Your task to perform on an android device: star an email in the gmail app Image 0: 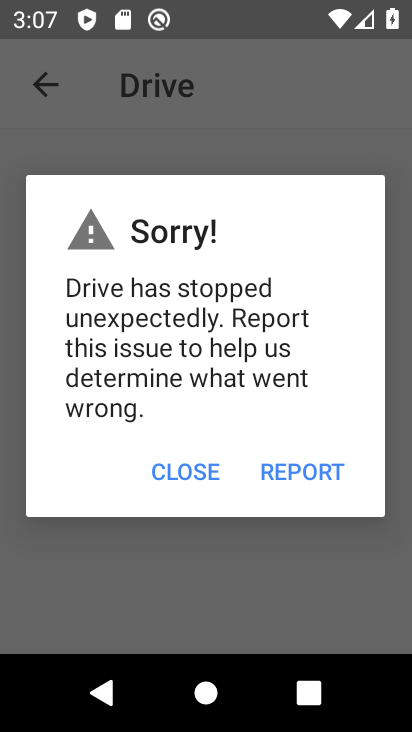
Step 0: drag from (150, 592) to (309, 137)
Your task to perform on an android device: star an email in the gmail app Image 1: 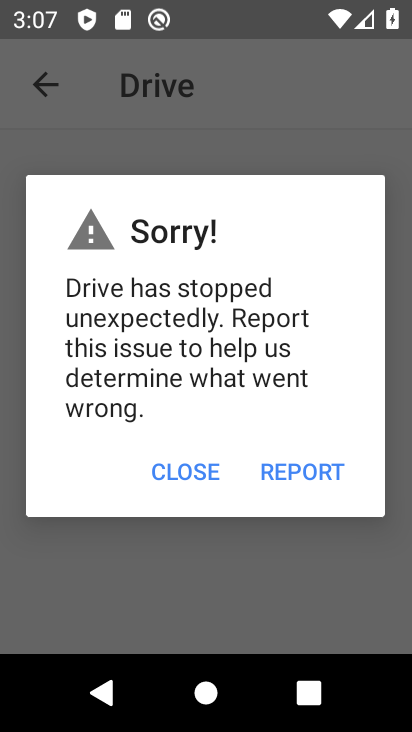
Step 1: press home button
Your task to perform on an android device: star an email in the gmail app Image 2: 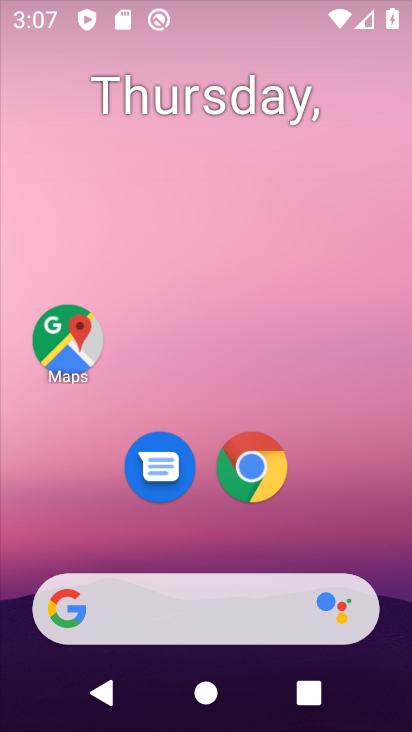
Step 2: drag from (163, 611) to (179, 61)
Your task to perform on an android device: star an email in the gmail app Image 3: 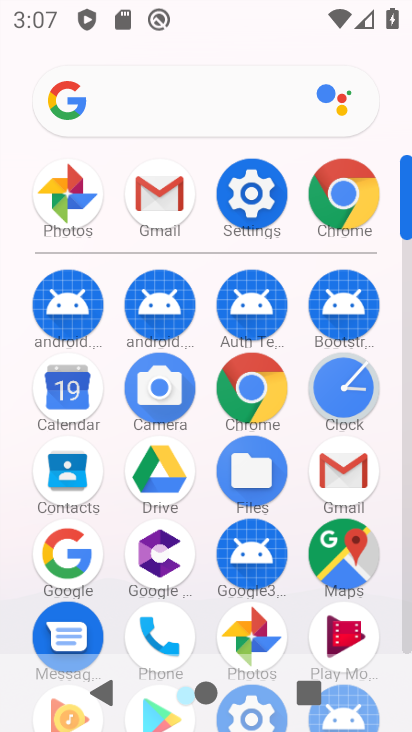
Step 3: click (146, 216)
Your task to perform on an android device: star an email in the gmail app Image 4: 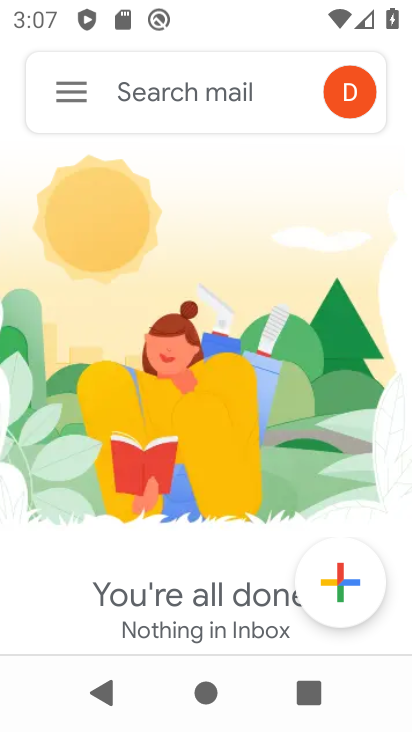
Step 4: click (69, 84)
Your task to perform on an android device: star an email in the gmail app Image 5: 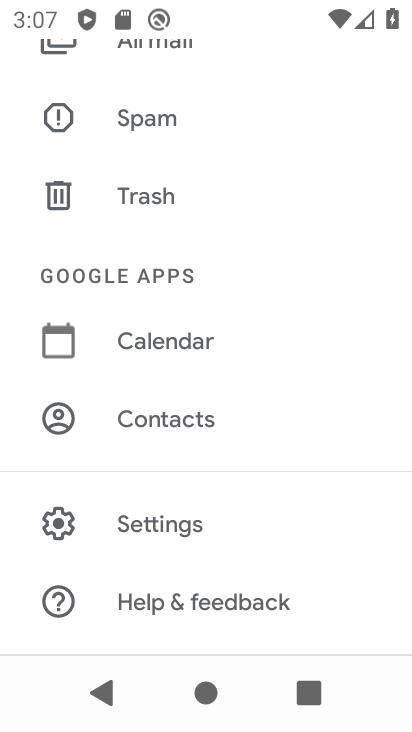
Step 5: drag from (145, 133) to (138, 454)
Your task to perform on an android device: star an email in the gmail app Image 6: 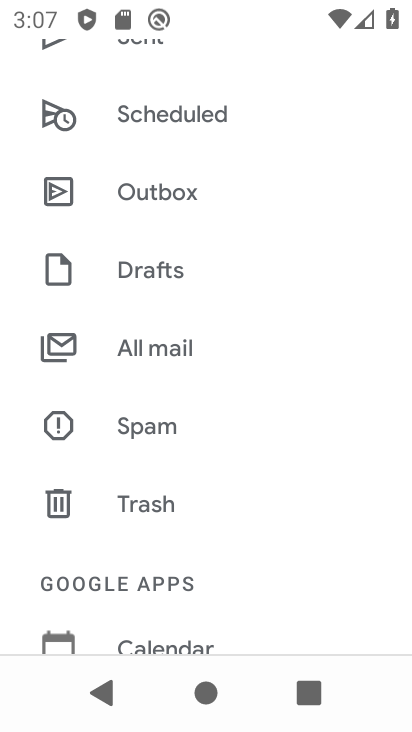
Step 6: click (138, 340)
Your task to perform on an android device: star an email in the gmail app Image 7: 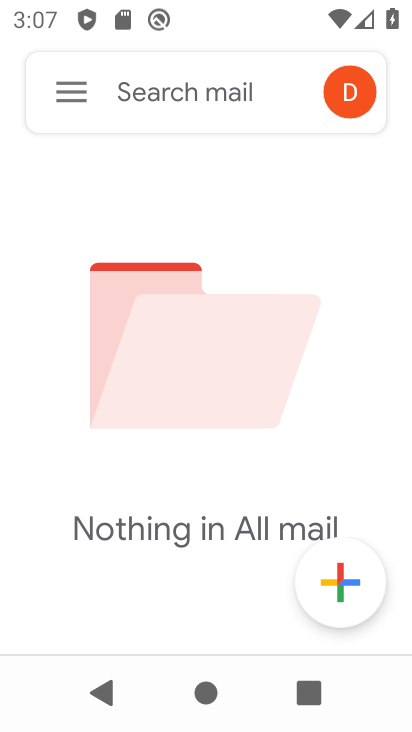
Step 7: task complete